Your task to perform on an android device: Open the Play Movies app and select the watchlist tab. Image 0: 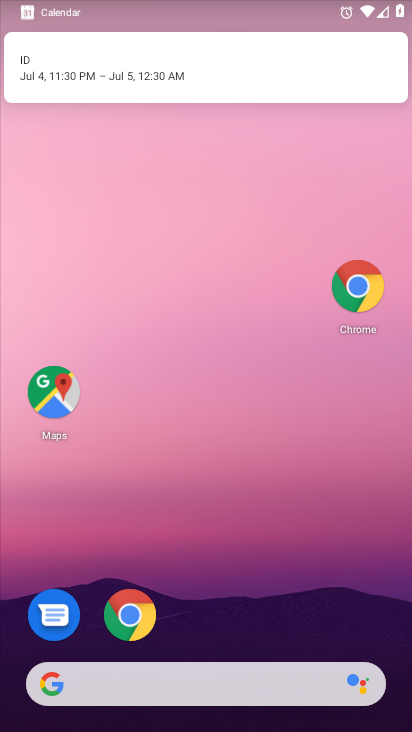
Step 0: drag from (271, 697) to (156, 73)
Your task to perform on an android device: Open the Play Movies app and select the watchlist tab. Image 1: 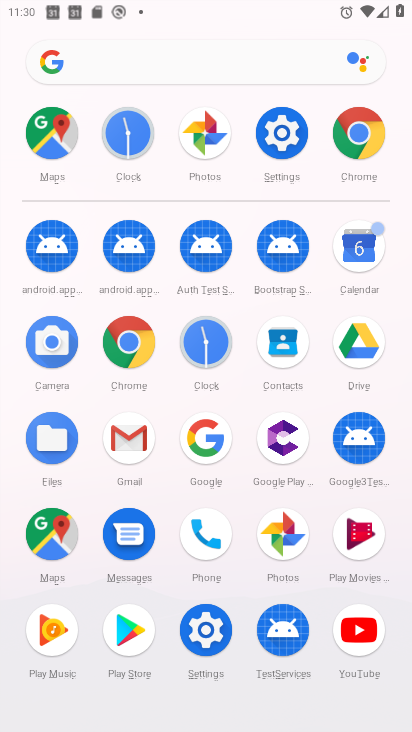
Step 1: click (365, 545)
Your task to perform on an android device: Open the Play Movies app and select the watchlist tab. Image 2: 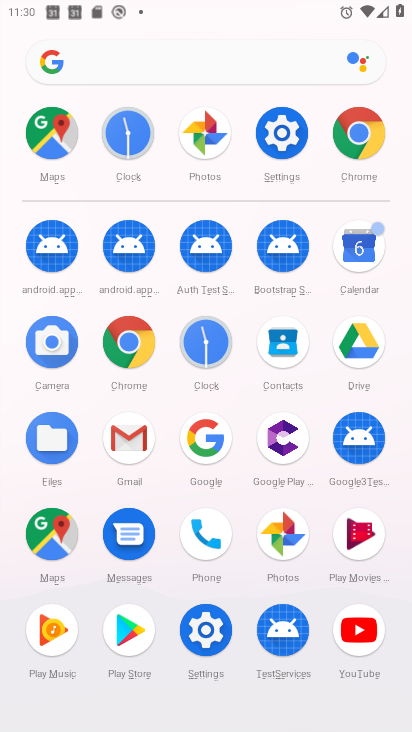
Step 2: click (365, 545)
Your task to perform on an android device: Open the Play Movies app and select the watchlist tab. Image 3: 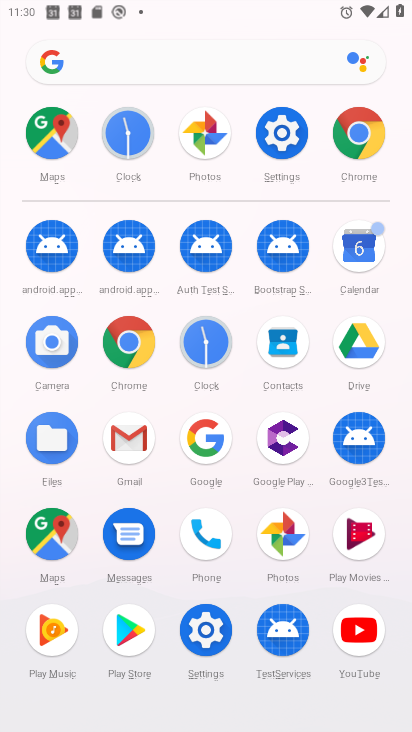
Step 3: click (359, 536)
Your task to perform on an android device: Open the Play Movies app and select the watchlist tab. Image 4: 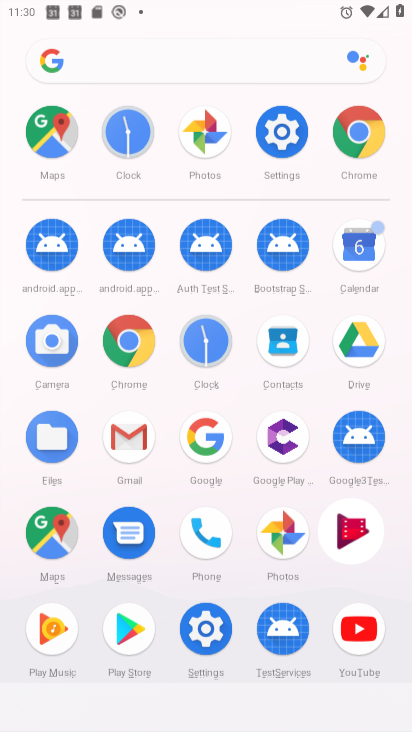
Step 4: click (346, 544)
Your task to perform on an android device: Open the Play Movies app and select the watchlist tab. Image 5: 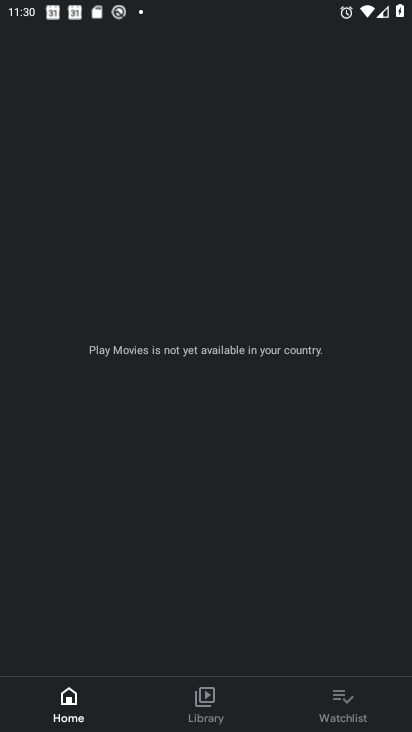
Step 5: click (352, 705)
Your task to perform on an android device: Open the Play Movies app and select the watchlist tab. Image 6: 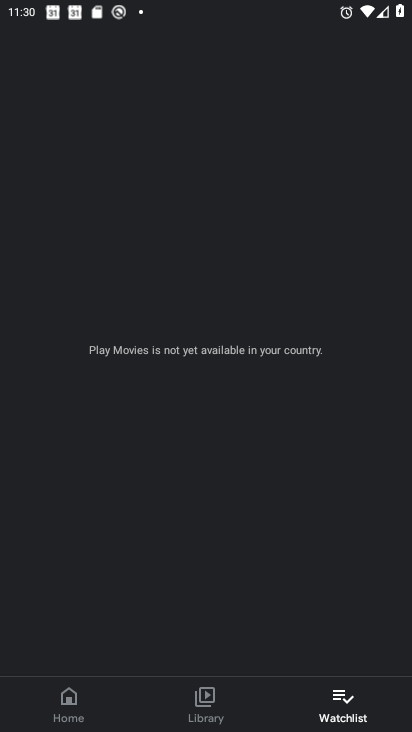
Step 6: click (333, 709)
Your task to perform on an android device: Open the Play Movies app and select the watchlist tab. Image 7: 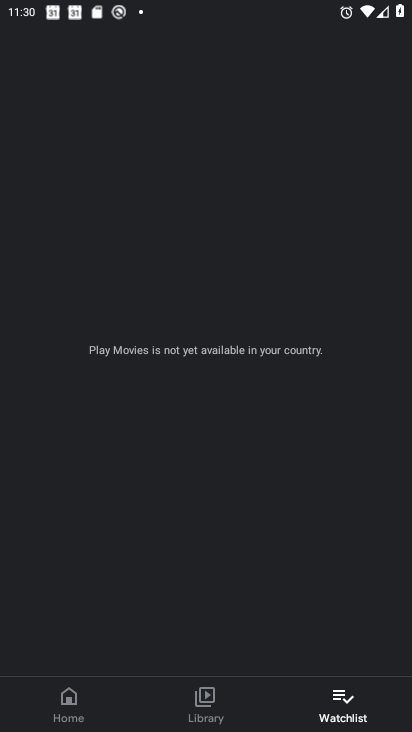
Step 7: task complete